Your task to perform on an android device: open chrome and create a bookmark for the current page Image 0: 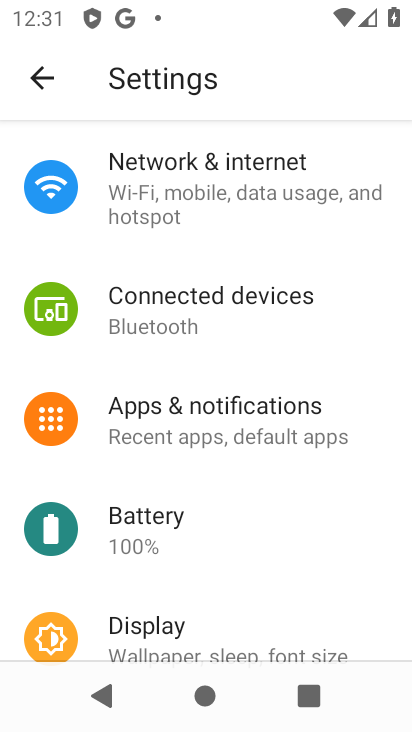
Step 0: press home button
Your task to perform on an android device: open chrome and create a bookmark for the current page Image 1: 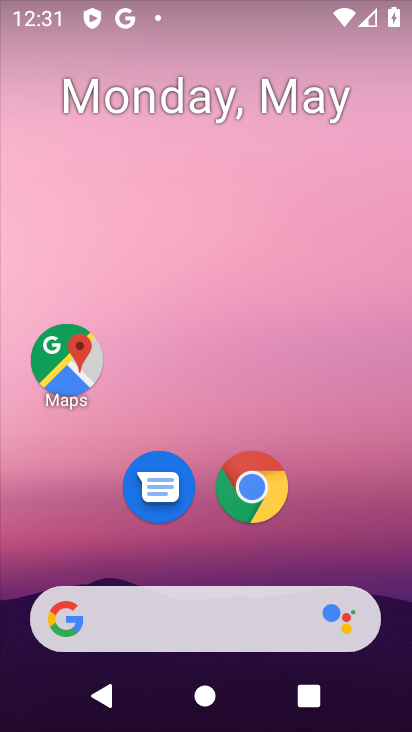
Step 1: click (252, 488)
Your task to perform on an android device: open chrome and create a bookmark for the current page Image 2: 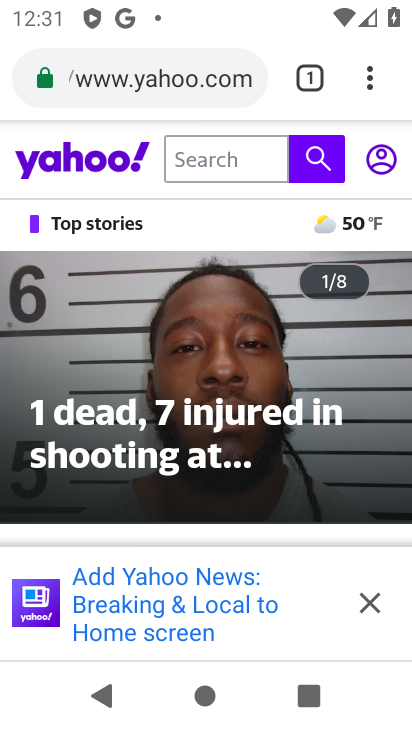
Step 2: click (369, 78)
Your task to perform on an android device: open chrome and create a bookmark for the current page Image 3: 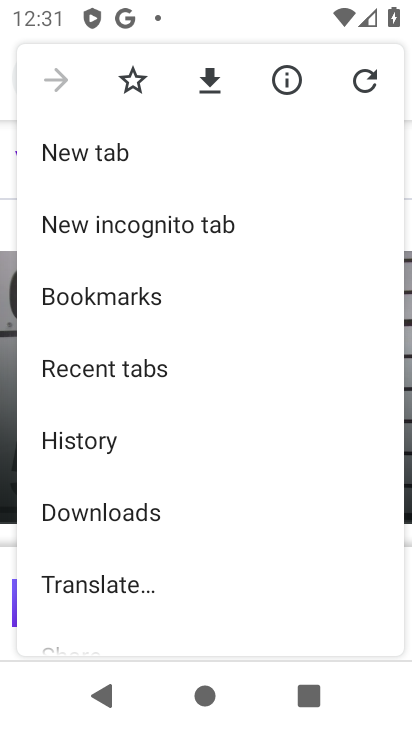
Step 3: click (129, 77)
Your task to perform on an android device: open chrome and create a bookmark for the current page Image 4: 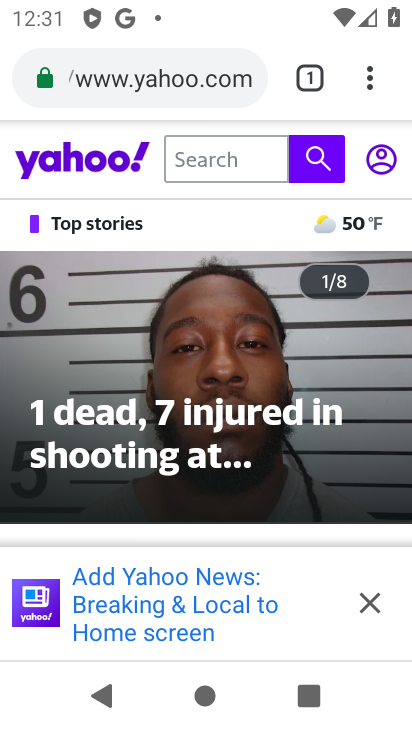
Step 4: task complete